Your task to perform on an android device: Search for vegetarian restaurants on Maps Image 0: 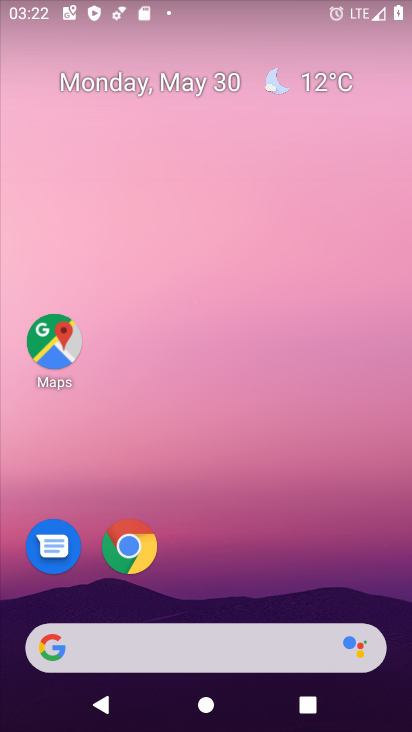
Step 0: press home button
Your task to perform on an android device: Search for vegetarian restaurants on Maps Image 1: 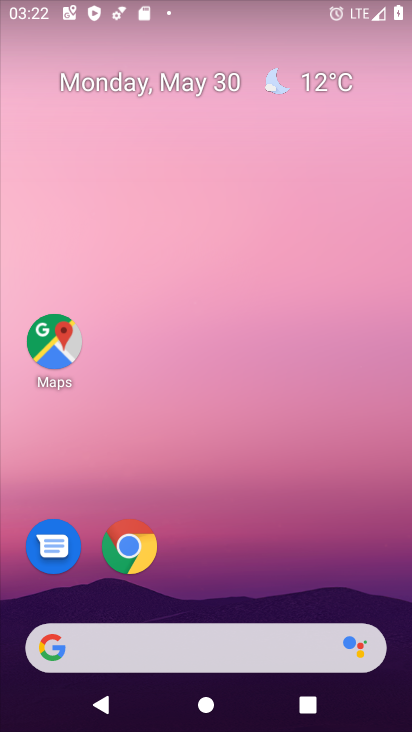
Step 1: click (56, 337)
Your task to perform on an android device: Search for vegetarian restaurants on Maps Image 2: 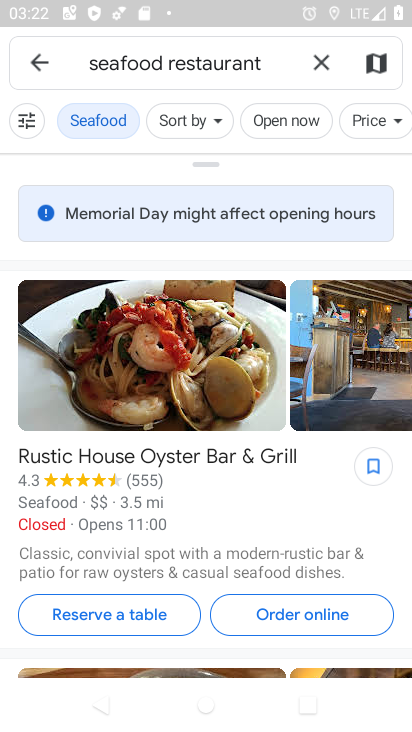
Step 2: click (319, 63)
Your task to perform on an android device: Search for vegetarian restaurants on Maps Image 3: 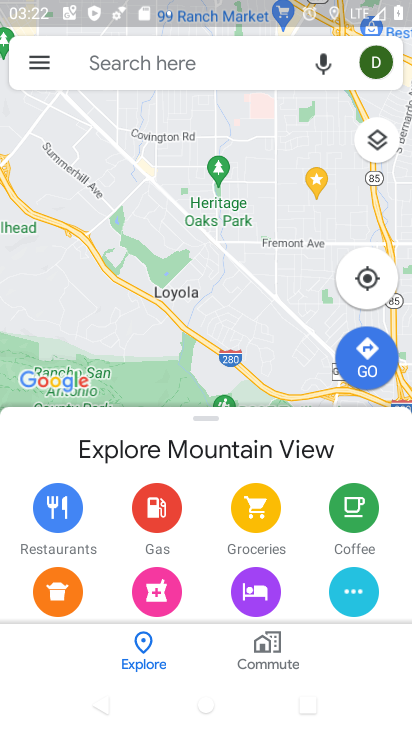
Step 3: click (123, 44)
Your task to perform on an android device: Search for vegetarian restaurants on Maps Image 4: 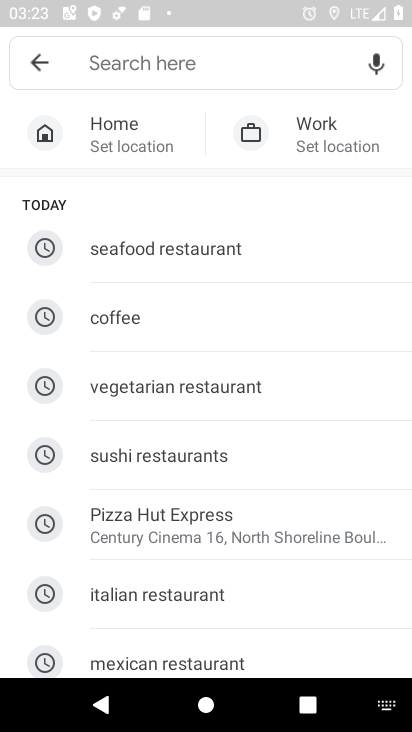
Step 4: click (170, 394)
Your task to perform on an android device: Search for vegetarian restaurants on Maps Image 5: 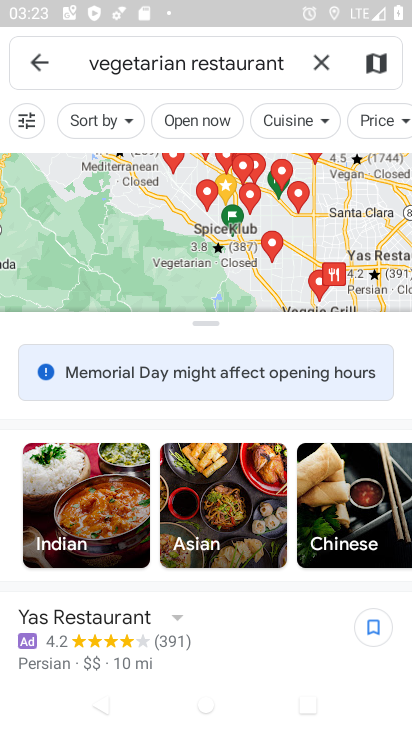
Step 5: task complete